Your task to perform on an android device: turn pop-ups off in chrome Image 0: 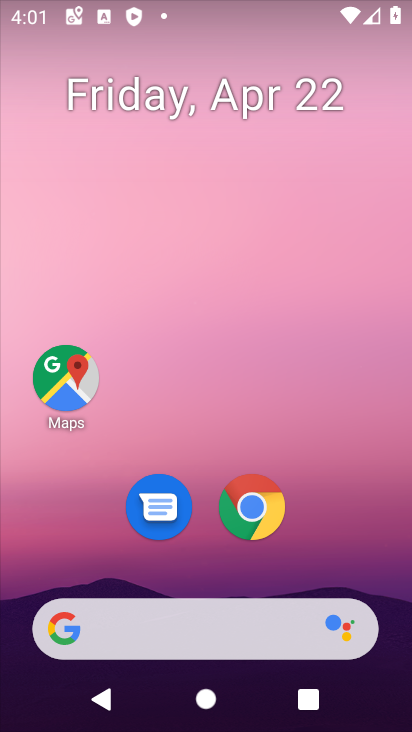
Step 0: click (254, 505)
Your task to perform on an android device: turn pop-ups off in chrome Image 1: 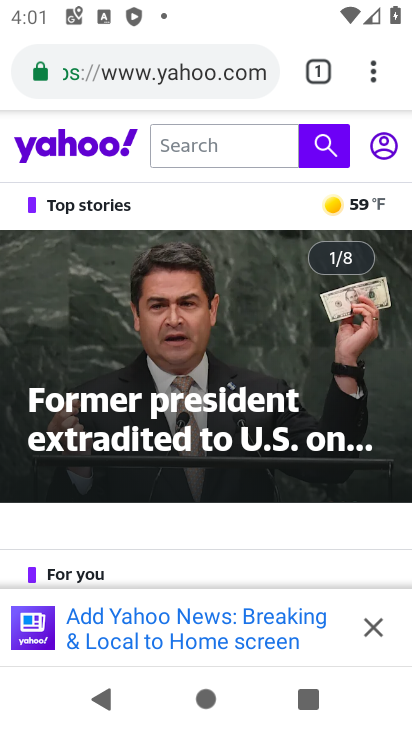
Step 1: drag from (372, 76) to (302, 504)
Your task to perform on an android device: turn pop-ups off in chrome Image 2: 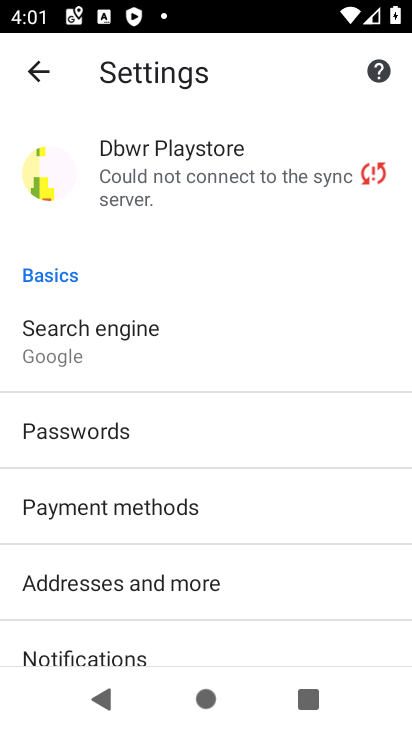
Step 2: drag from (300, 595) to (274, 268)
Your task to perform on an android device: turn pop-ups off in chrome Image 3: 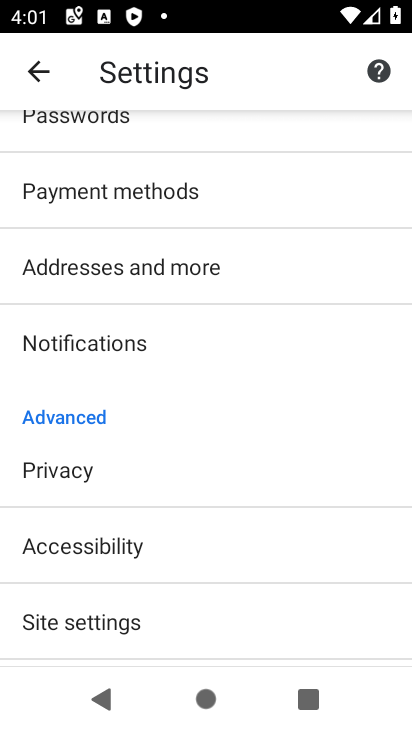
Step 3: click (226, 621)
Your task to perform on an android device: turn pop-ups off in chrome Image 4: 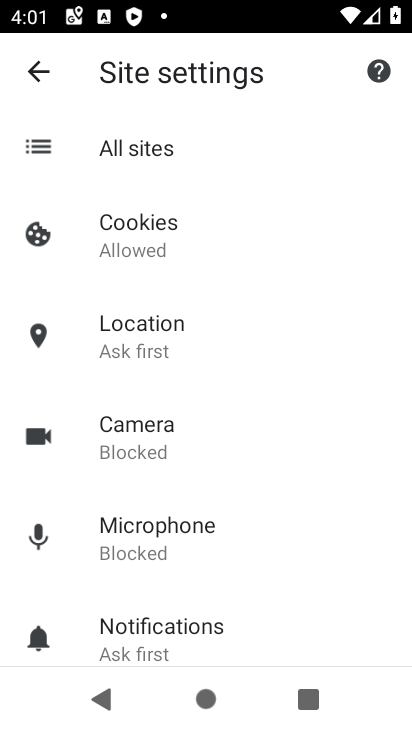
Step 4: drag from (282, 556) to (247, 202)
Your task to perform on an android device: turn pop-ups off in chrome Image 5: 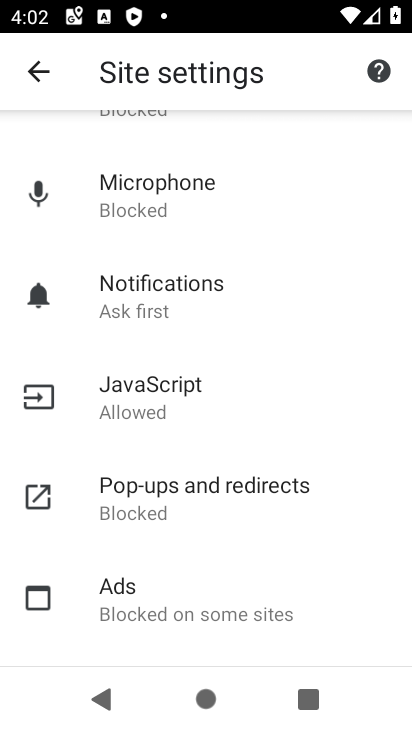
Step 5: click (237, 480)
Your task to perform on an android device: turn pop-ups off in chrome Image 6: 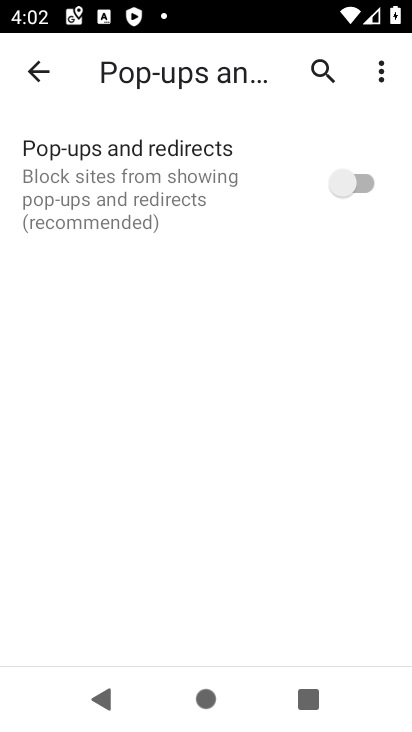
Step 6: task complete